Your task to perform on an android device: Open Google Image 0: 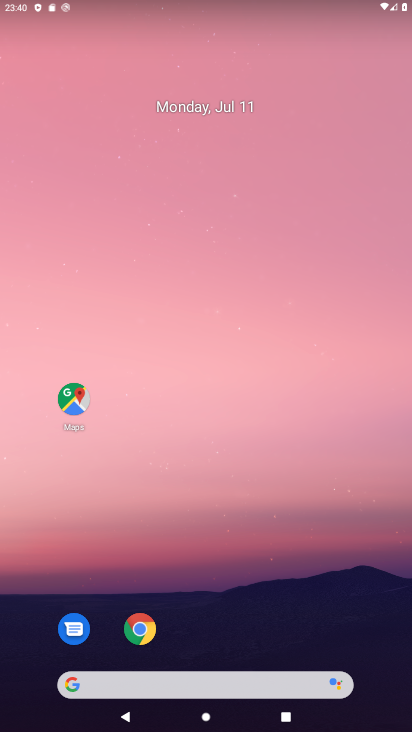
Step 0: drag from (368, 644) to (382, 76)
Your task to perform on an android device: Open Google Image 1: 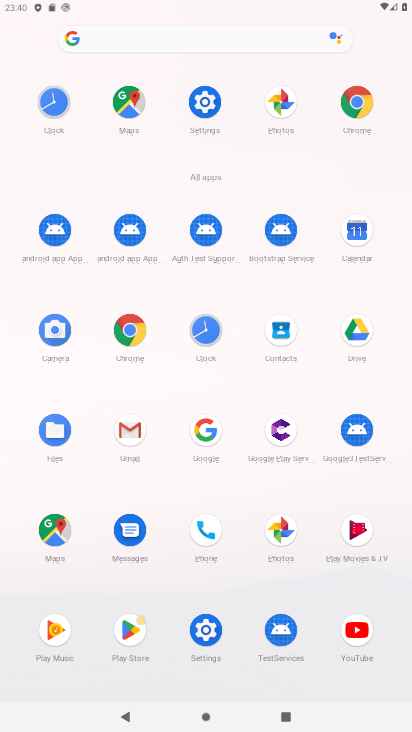
Step 1: click (197, 436)
Your task to perform on an android device: Open Google Image 2: 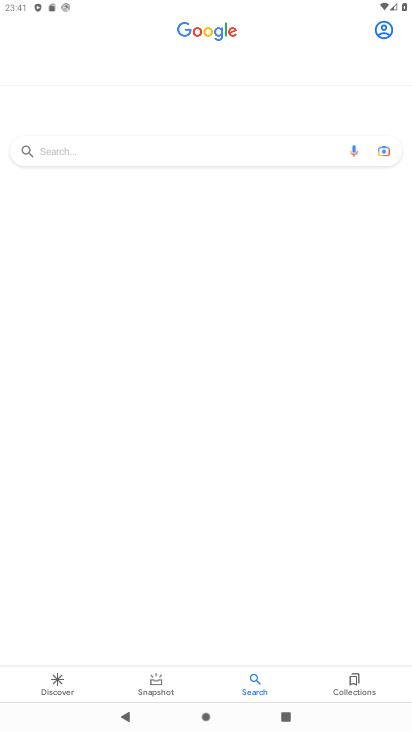
Step 2: task complete